Your task to perform on an android device: search for starred emails in the gmail app Image 0: 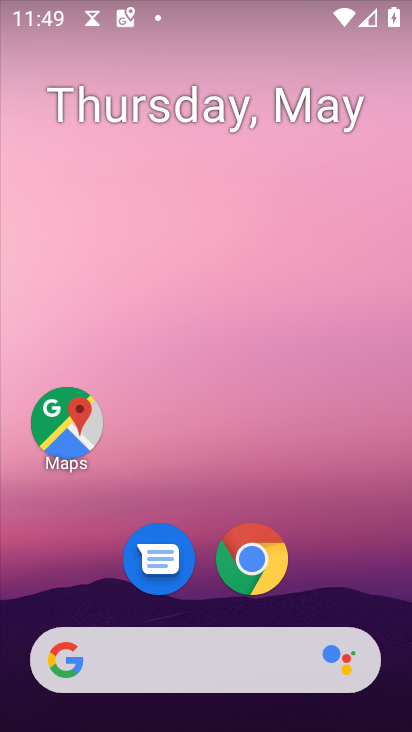
Step 0: drag from (202, 726) to (192, 318)
Your task to perform on an android device: search for starred emails in the gmail app Image 1: 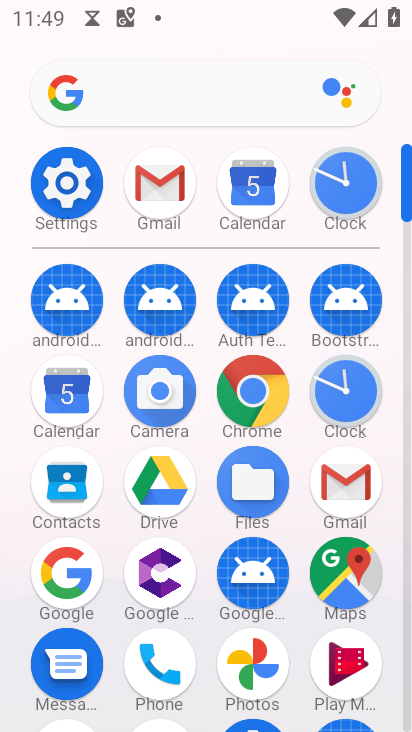
Step 1: click (164, 184)
Your task to perform on an android device: search for starred emails in the gmail app Image 2: 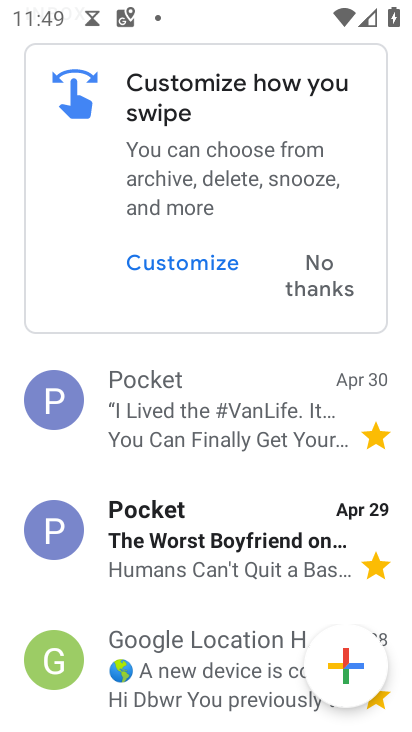
Step 2: drag from (189, 651) to (183, 297)
Your task to perform on an android device: search for starred emails in the gmail app Image 3: 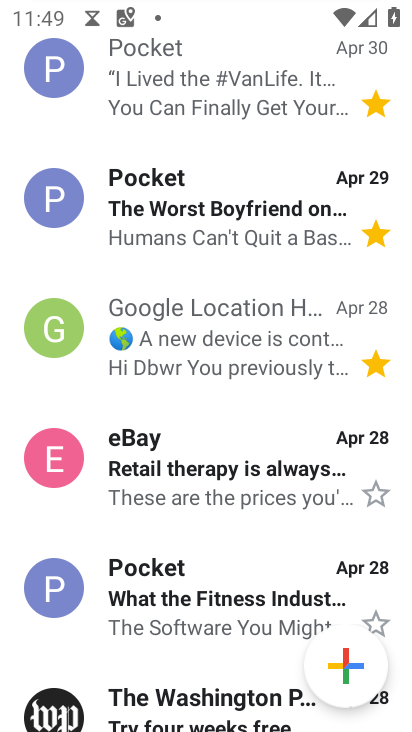
Step 3: click (371, 490)
Your task to perform on an android device: search for starred emails in the gmail app Image 4: 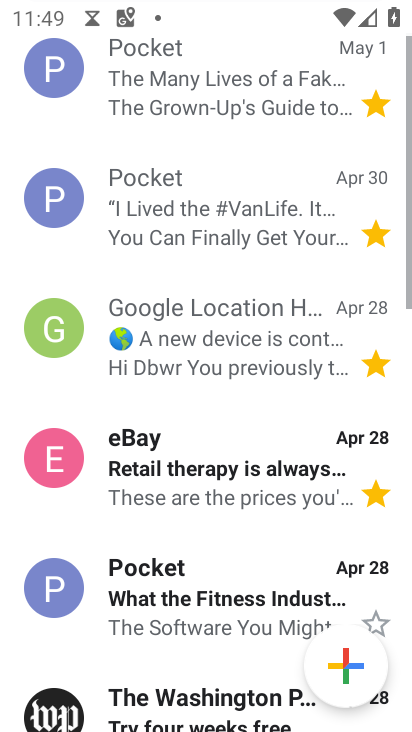
Step 4: task complete